Your task to perform on an android device: Add "alienware aurora" to the cart on target, then select checkout. Image 0: 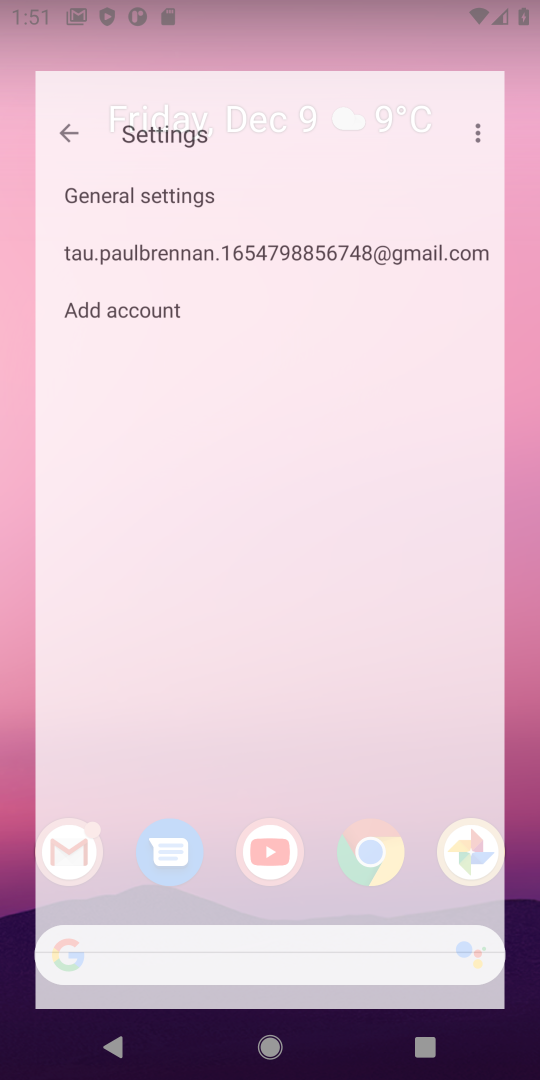
Step 0: click (373, 855)
Your task to perform on an android device: Add "alienware aurora" to the cart on target, then select checkout. Image 1: 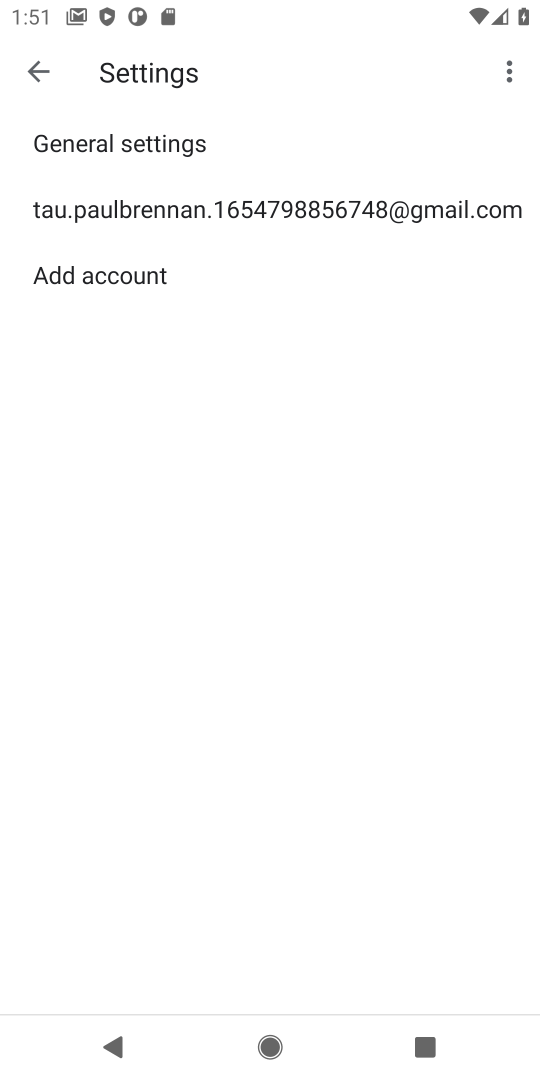
Step 1: press home button
Your task to perform on an android device: Add "alienware aurora" to the cart on target, then select checkout. Image 2: 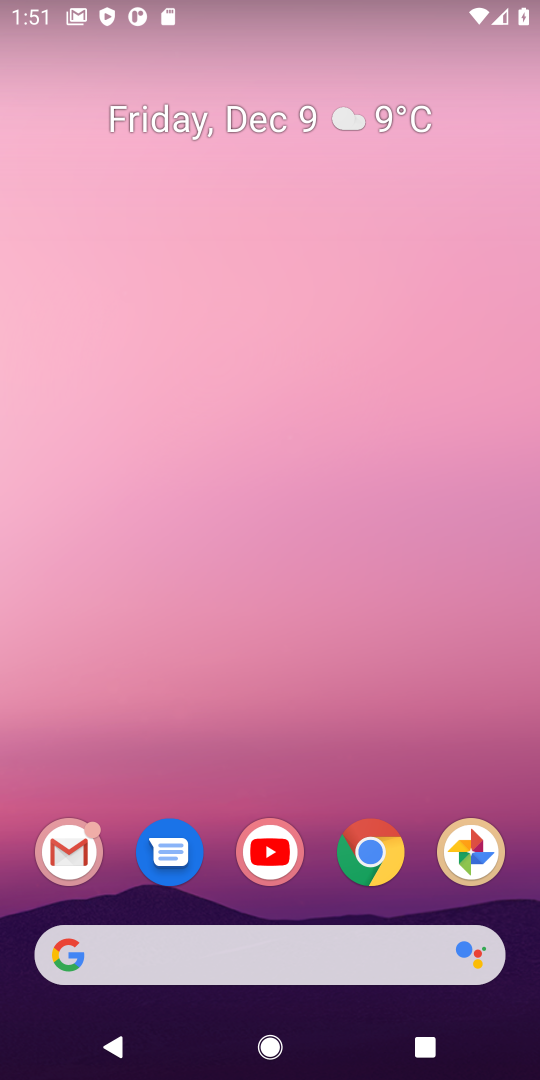
Step 2: click (386, 854)
Your task to perform on an android device: Add "alienware aurora" to the cart on target, then select checkout. Image 3: 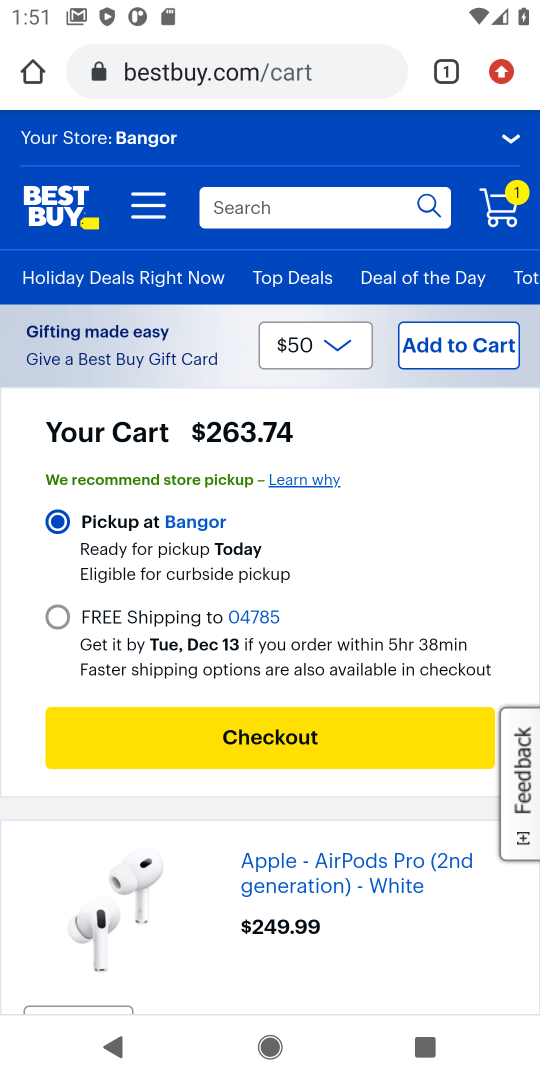
Step 3: click (361, 64)
Your task to perform on an android device: Add "alienware aurora" to the cart on target, then select checkout. Image 4: 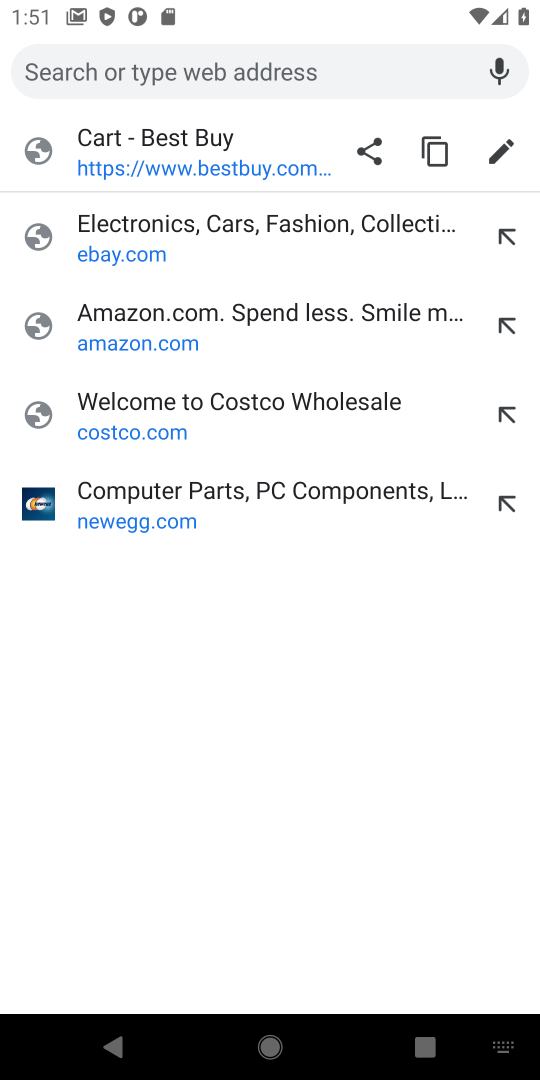
Step 4: type "target"
Your task to perform on an android device: Add "alienware aurora" to the cart on target, then select checkout. Image 5: 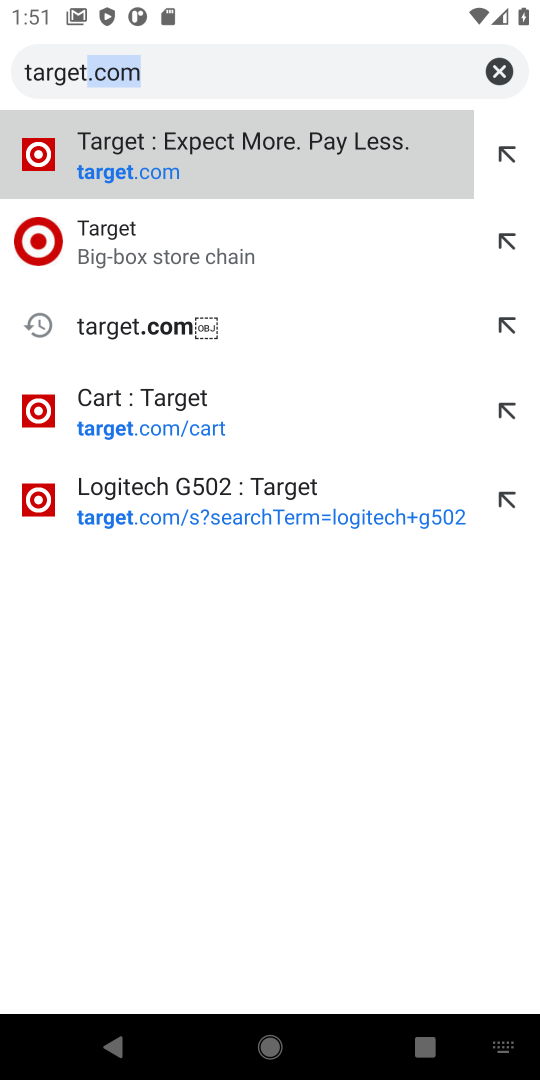
Step 5: press enter
Your task to perform on an android device: Add "alienware aurora" to the cart on target, then select checkout. Image 6: 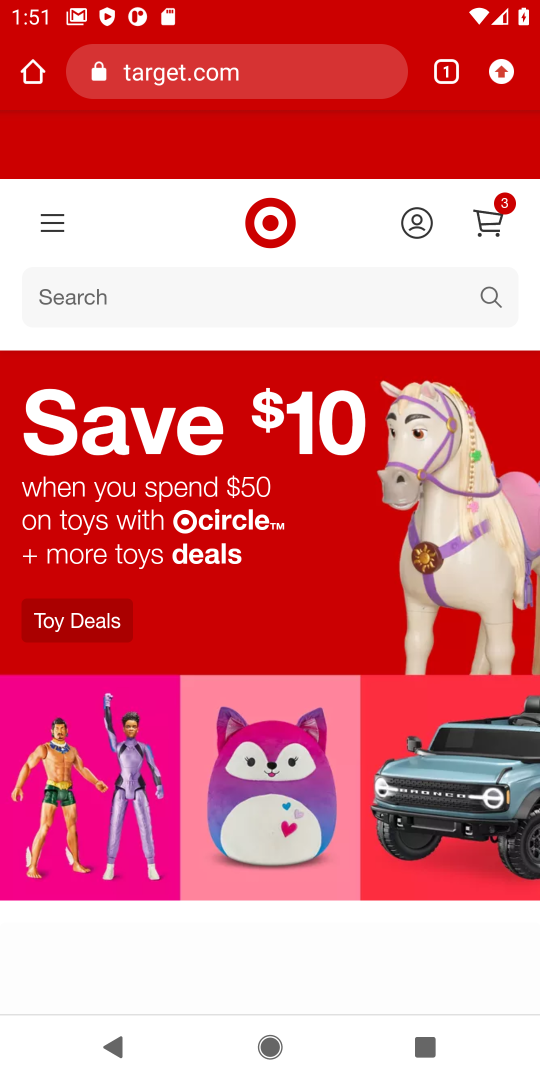
Step 6: click (479, 296)
Your task to perform on an android device: Add "alienware aurora" to the cart on target, then select checkout. Image 7: 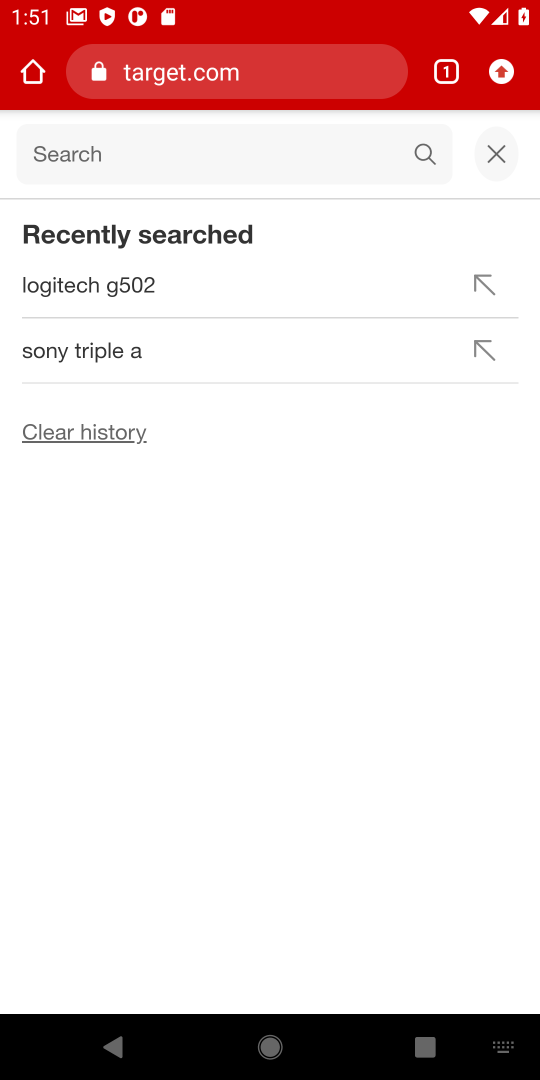
Step 7: type "alienware aurora"
Your task to perform on an android device: Add "alienware aurora" to the cart on target, then select checkout. Image 8: 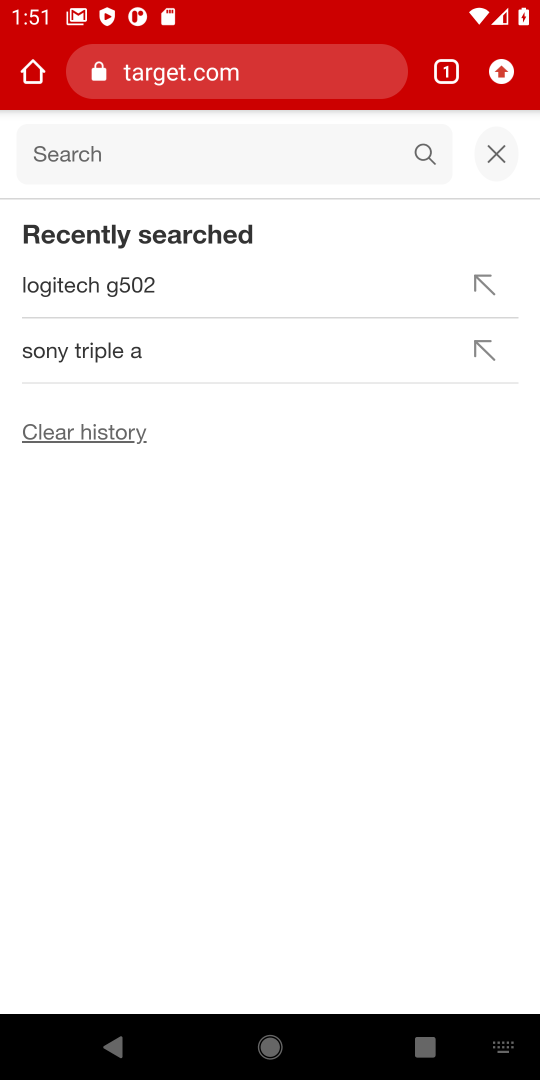
Step 8: press enter
Your task to perform on an android device: Add "alienware aurora" to the cart on target, then select checkout. Image 9: 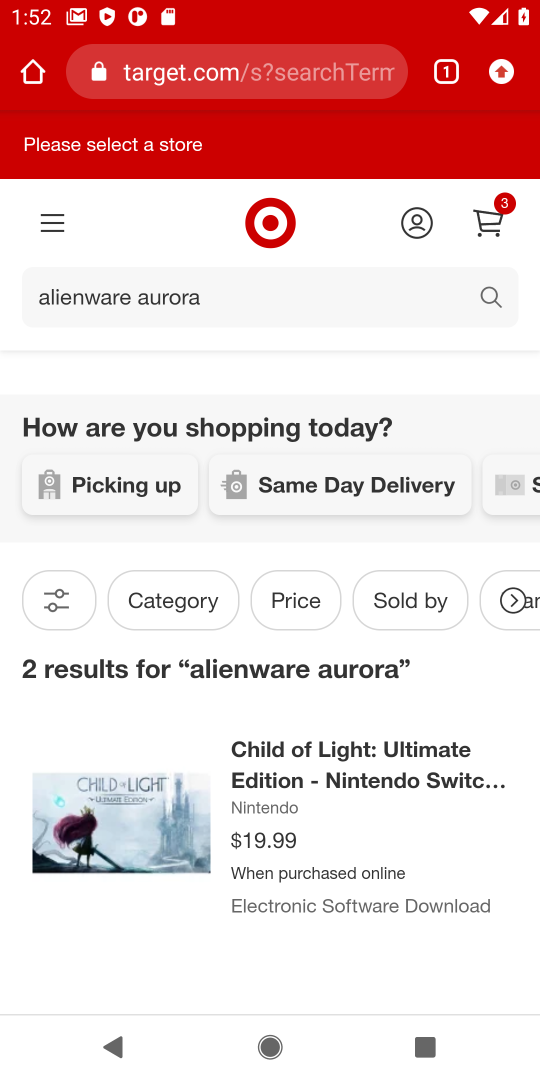
Step 9: task complete